Your task to perform on an android device: Open the calendar and show me this week's events? Image 0: 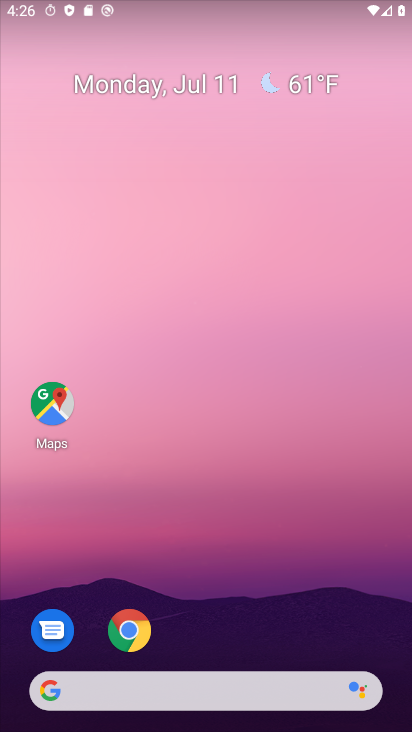
Step 0: drag from (255, 617) to (160, 2)
Your task to perform on an android device: Open the calendar and show me this week's events? Image 1: 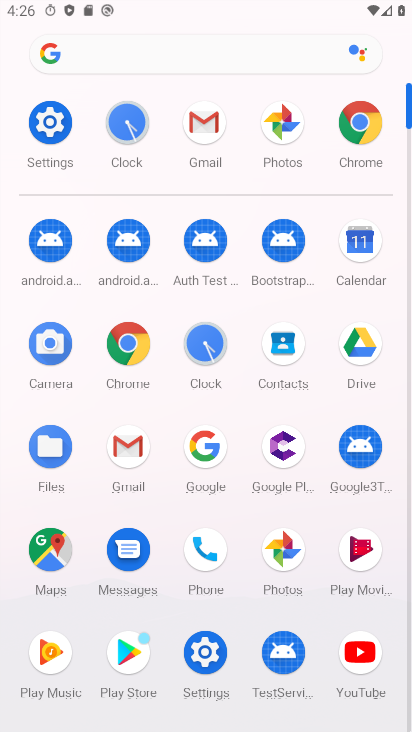
Step 1: click (360, 289)
Your task to perform on an android device: Open the calendar and show me this week's events? Image 2: 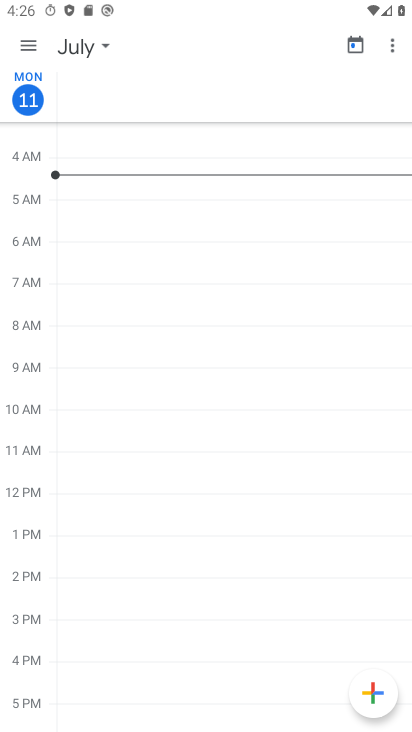
Step 2: click (97, 49)
Your task to perform on an android device: Open the calendar and show me this week's events? Image 3: 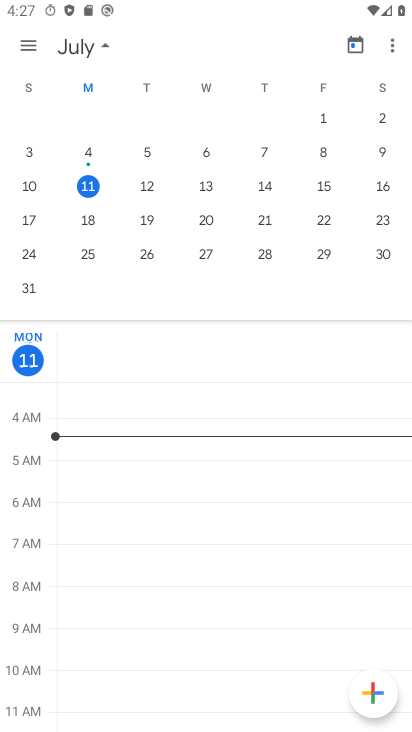
Step 3: task complete